Your task to perform on an android device: check the backup settings in the google photos Image 0: 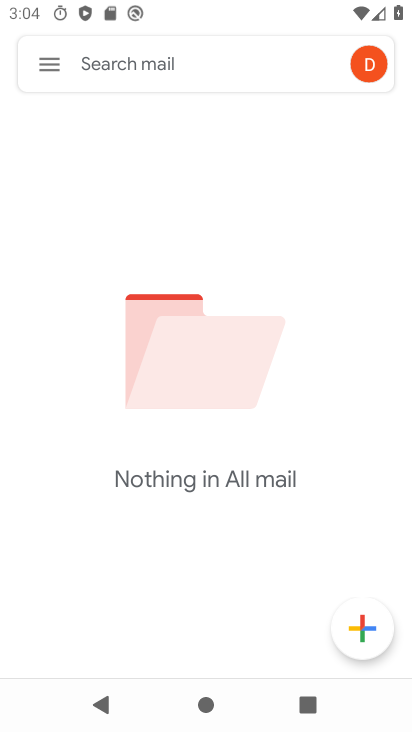
Step 0: press home button
Your task to perform on an android device: check the backup settings in the google photos Image 1: 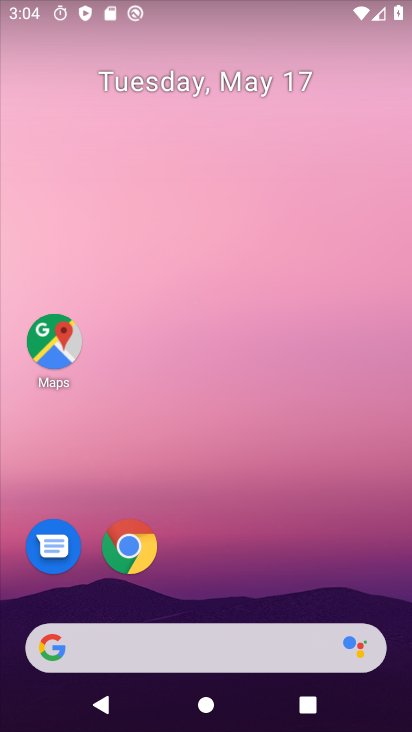
Step 1: drag from (146, 615) to (183, 193)
Your task to perform on an android device: check the backup settings in the google photos Image 2: 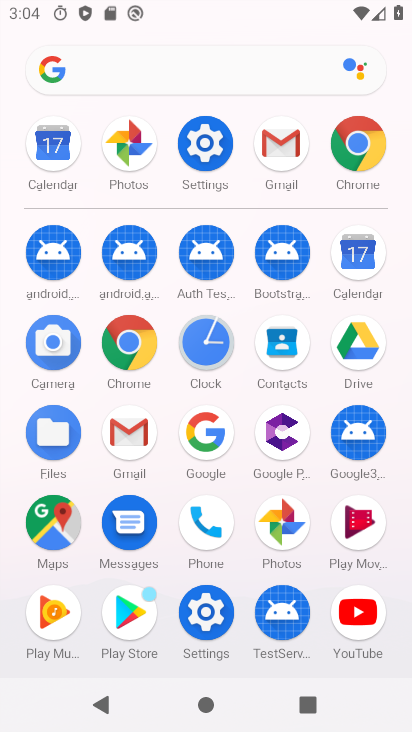
Step 2: click (298, 520)
Your task to perform on an android device: check the backup settings in the google photos Image 3: 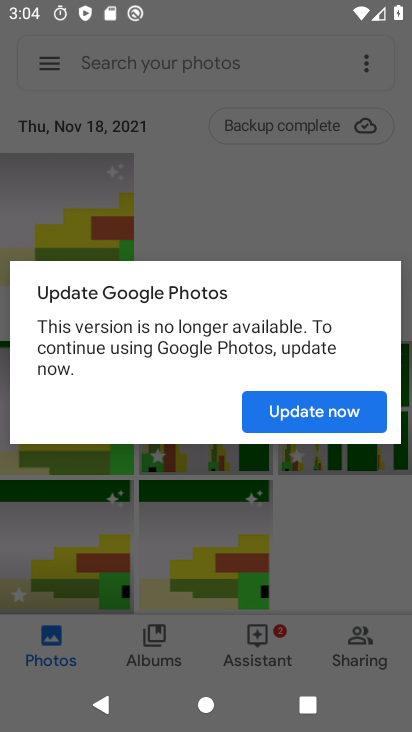
Step 3: task complete